Your task to perform on an android device: Open network settings Image 0: 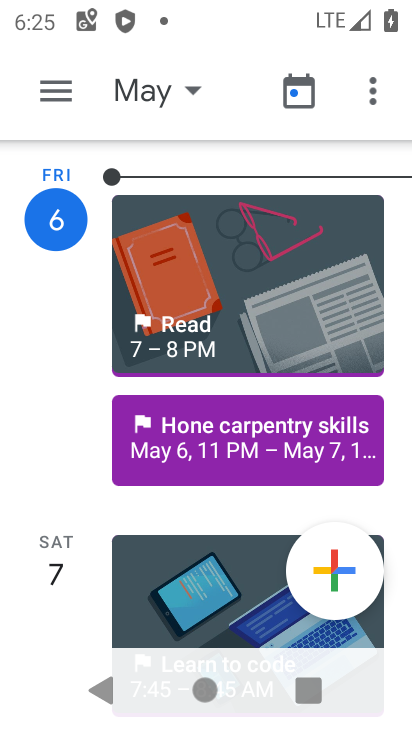
Step 0: press home button
Your task to perform on an android device: Open network settings Image 1: 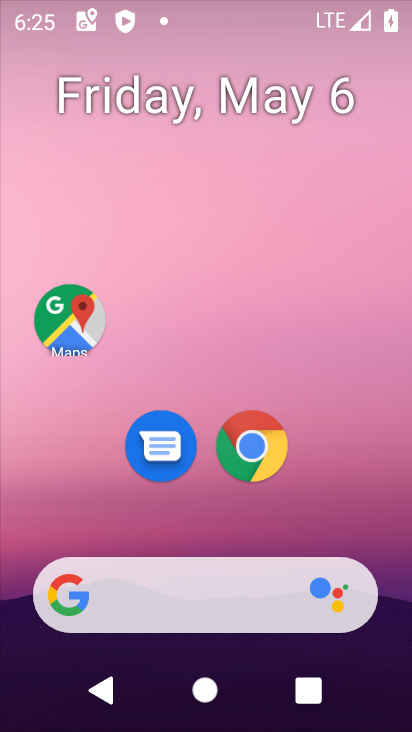
Step 1: drag from (335, 486) to (280, 125)
Your task to perform on an android device: Open network settings Image 2: 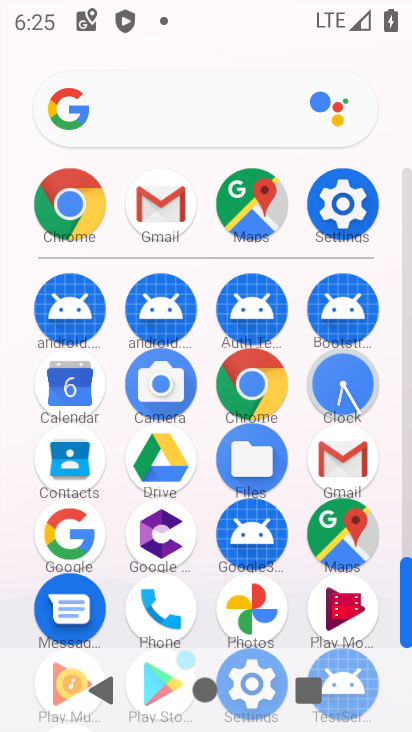
Step 2: click (348, 218)
Your task to perform on an android device: Open network settings Image 3: 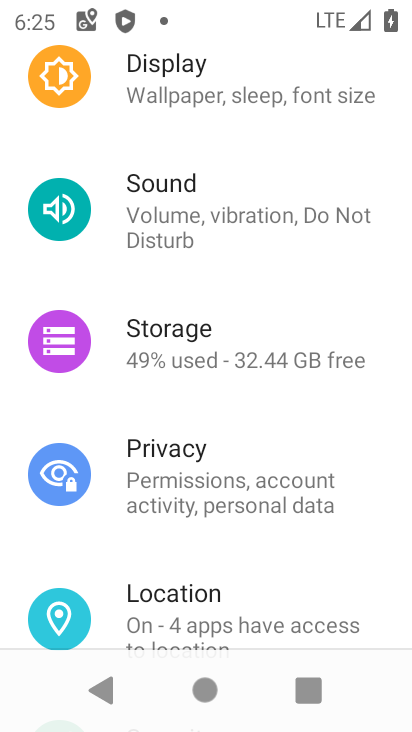
Step 3: drag from (253, 224) to (275, 547)
Your task to perform on an android device: Open network settings Image 4: 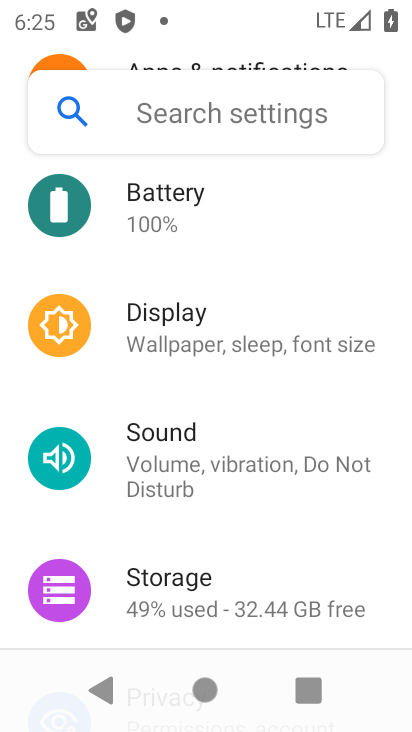
Step 4: drag from (290, 285) to (267, 579)
Your task to perform on an android device: Open network settings Image 5: 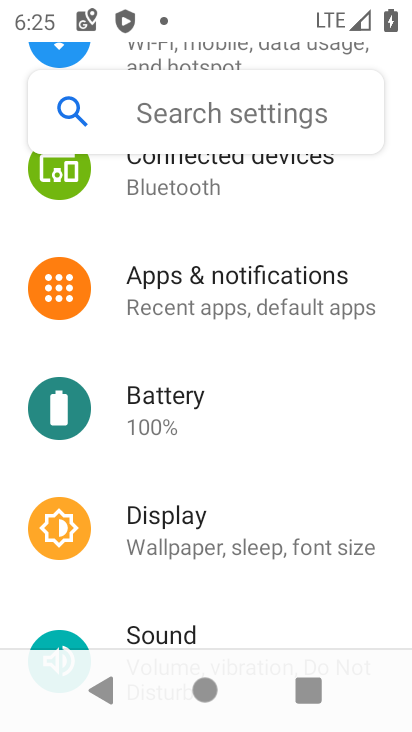
Step 5: drag from (243, 199) to (235, 581)
Your task to perform on an android device: Open network settings Image 6: 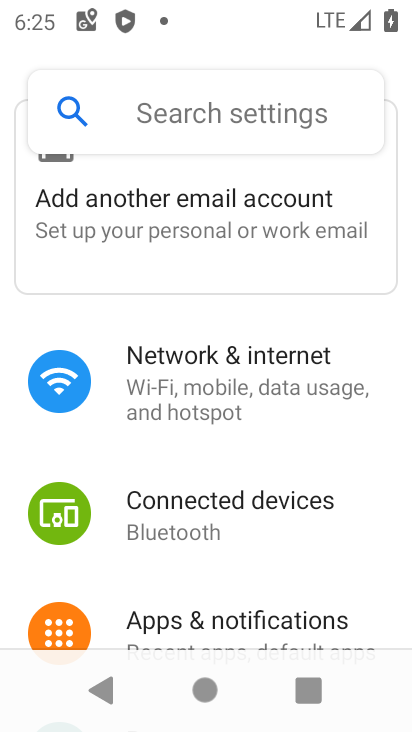
Step 6: click (215, 378)
Your task to perform on an android device: Open network settings Image 7: 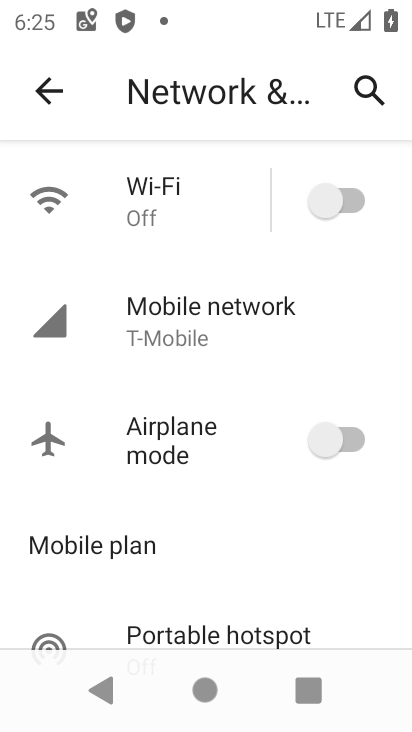
Step 7: task complete